Your task to perform on an android device: Open battery settings Image 0: 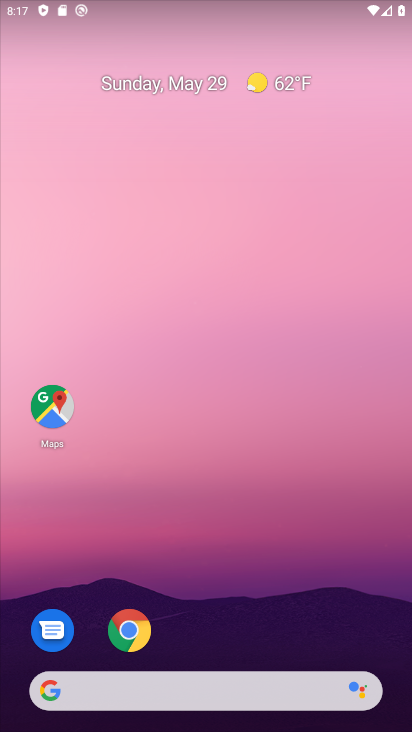
Step 0: drag from (366, 570) to (325, 207)
Your task to perform on an android device: Open battery settings Image 1: 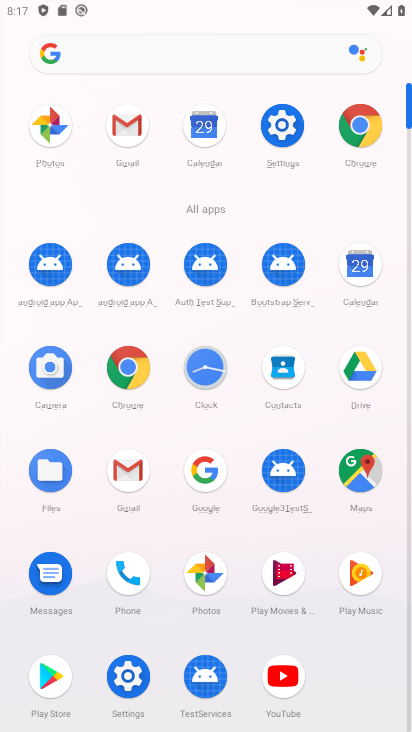
Step 1: click (269, 135)
Your task to perform on an android device: Open battery settings Image 2: 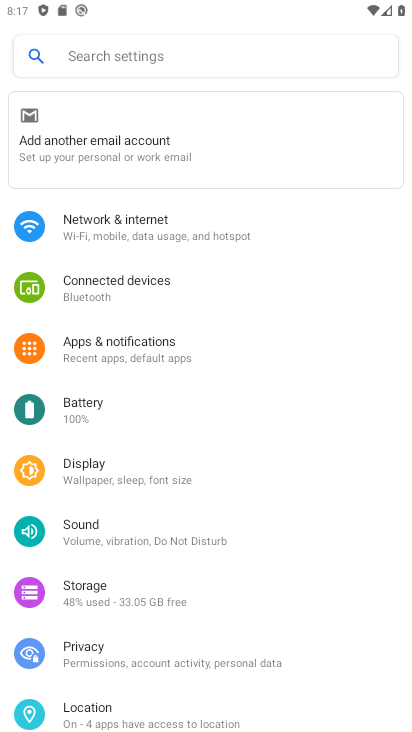
Step 2: click (103, 420)
Your task to perform on an android device: Open battery settings Image 3: 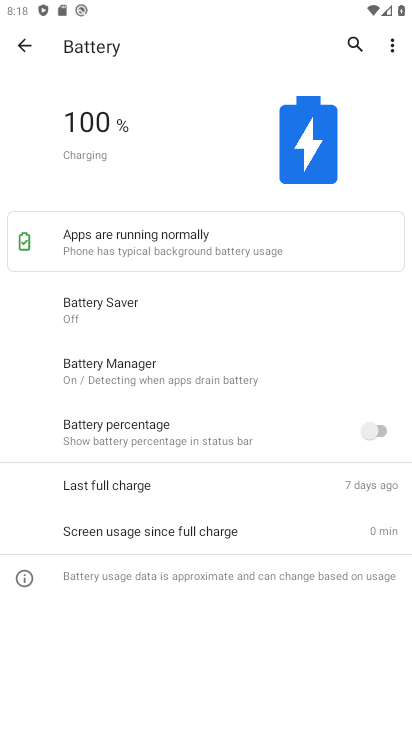
Step 3: click (389, 49)
Your task to perform on an android device: Open battery settings Image 4: 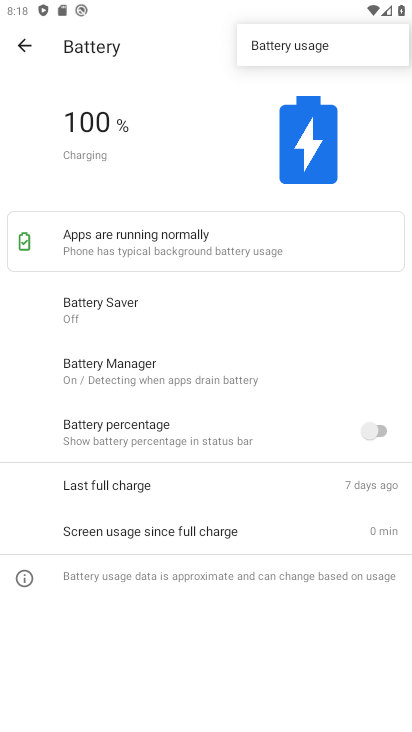
Step 4: click (335, 51)
Your task to perform on an android device: Open battery settings Image 5: 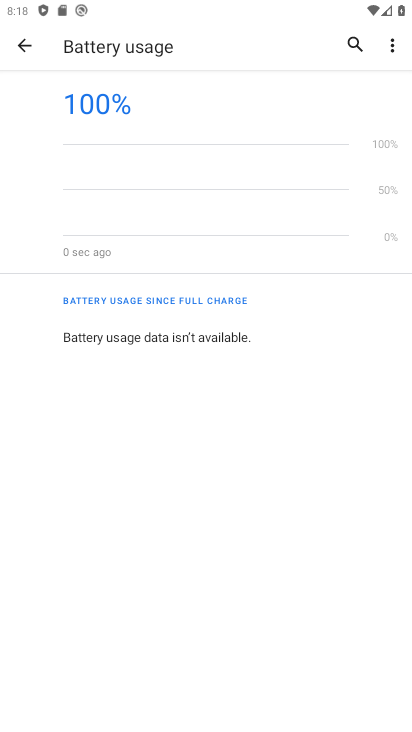
Step 5: task complete